Your task to perform on an android device: turn vacation reply on in the gmail app Image 0: 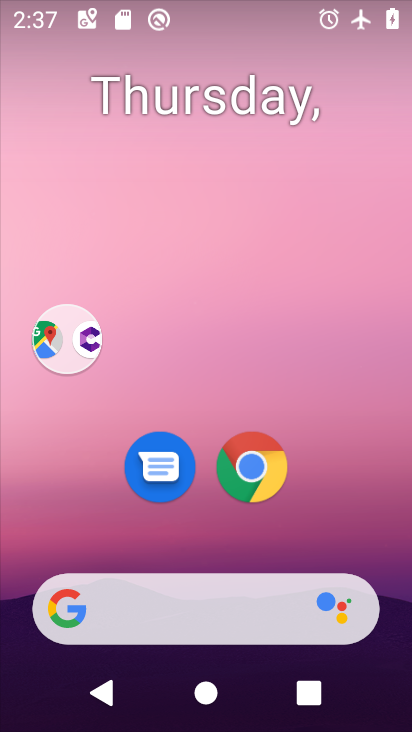
Step 0: drag from (189, 554) to (151, 17)
Your task to perform on an android device: turn vacation reply on in the gmail app Image 1: 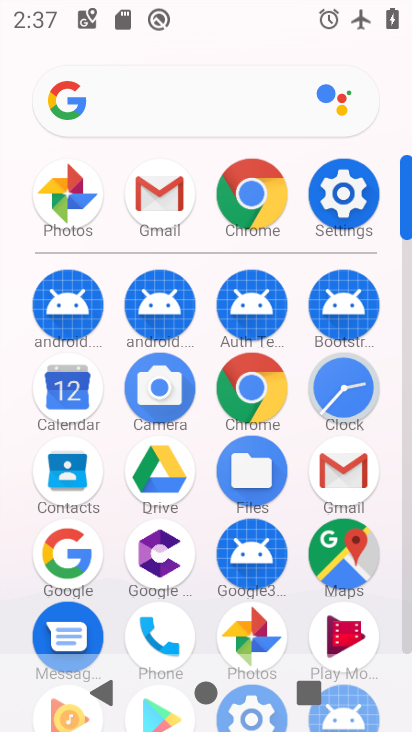
Step 1: click (339, 477)
Your task to perform on an android device: turn vacation reply on in the gmail app Image 2: 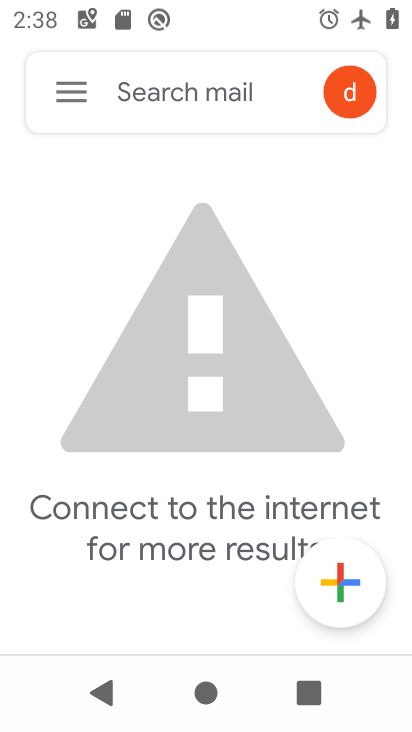
Step 2: click (70, 94)
Your task to perform on an android device: turn vacation reply on in the gmail app Image 3: 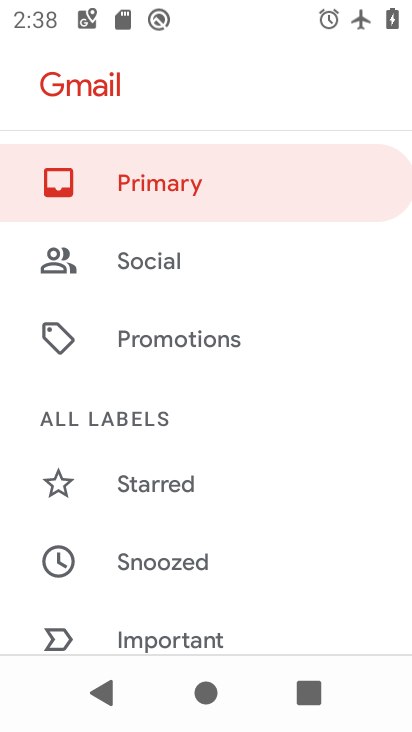
Step 3: drag from (148, 506) to (129, 4)
Your task to perform on an android device: turn vacation reply on in the gmail app Image 4: 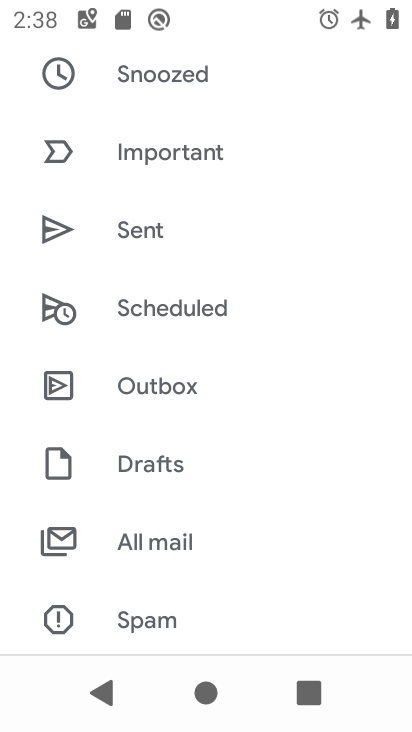
Step 4: drag from (238, 520) to (205, 2)
Your task to perform on an android device: turn vacation reply on in the gmail app Image 5: 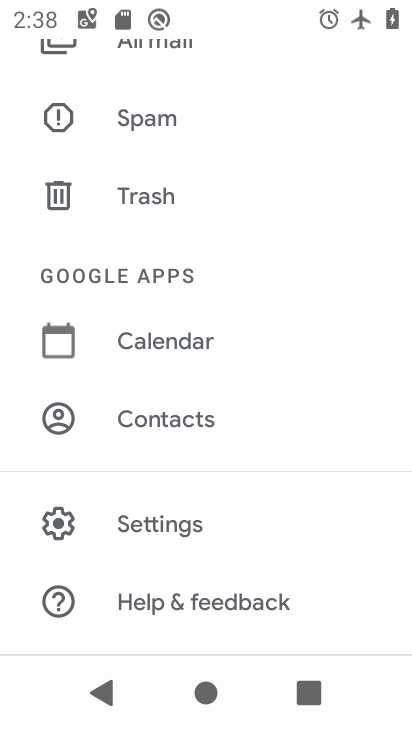
Step 5: click (152, 543)
Your task to perform on an android device: turn vacation reply on in the gmail app Image 6: 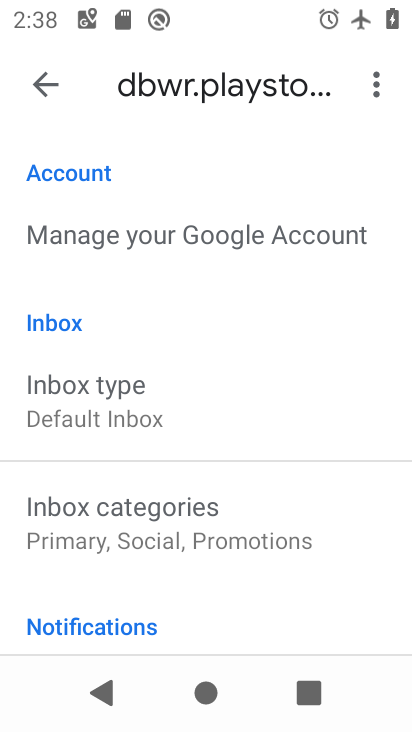
Step 6: drag from (134, 492) to (77, 61)
Your task to perform on an android device: turn vacation reply on in the gmail app Image 7: 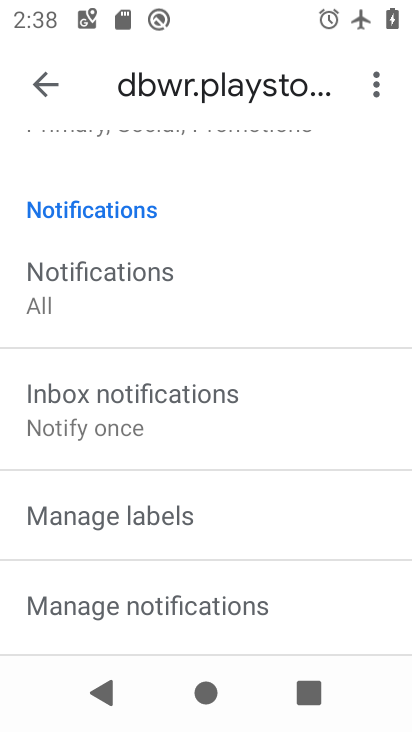
Step 7: drag from (159, 576) to (144, 113)
Your task to perform on an android device: turn vacation reply on in the gmail app Image 8: 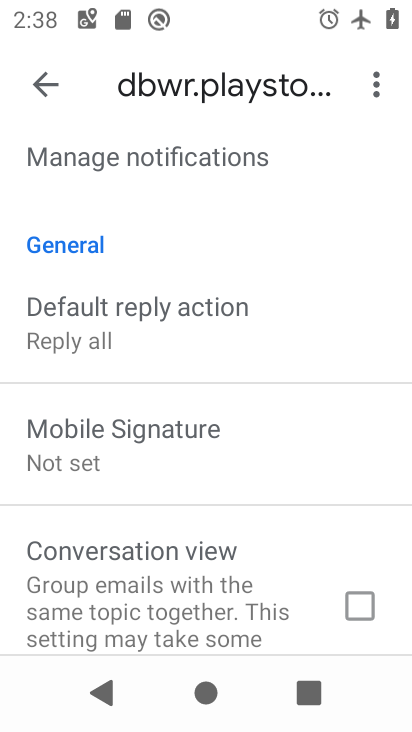
Step 8: drag from (200, 553) to (149, 112)
Your task to perform on an android device: turn vacation reply on in the gmail app Image 9: 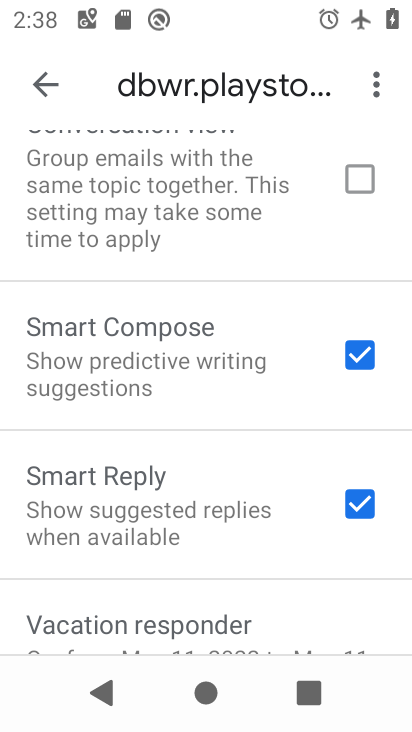
Step 9: click (204, 614)
Your task to perform on an android device: turn vacation reply on in the gmail app Image 10: 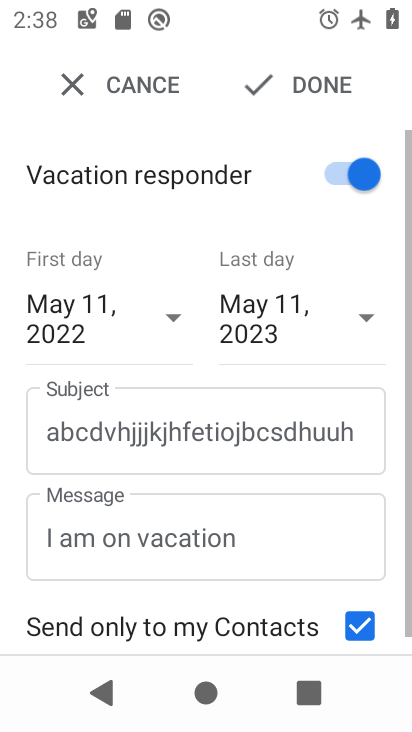
Step 10: click (306, 89)
Your task to perform on an android device: turn vacation reply on in the gmail app Image 11: 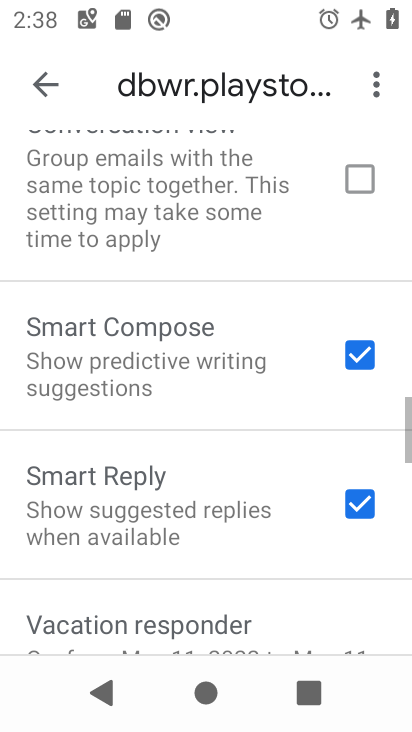
Step 11: task complete